Your task to perform on an android device: Show me the alarms in the clock app Image 0: 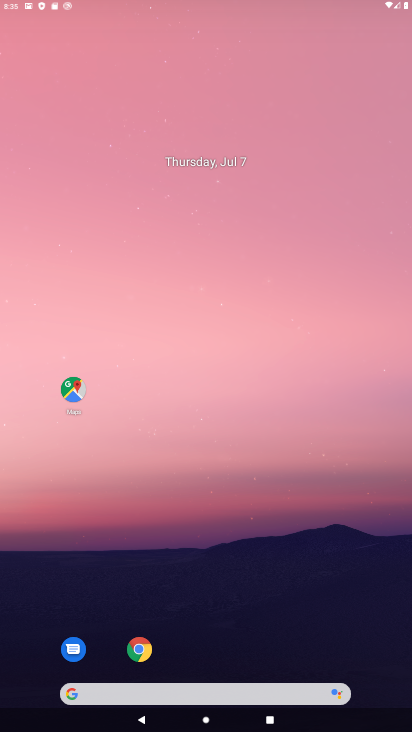
Step 0: drag from (195, 647) to (276, 110)
Your task to perform on an android device: Show me the alarms in the clock app Image 1: 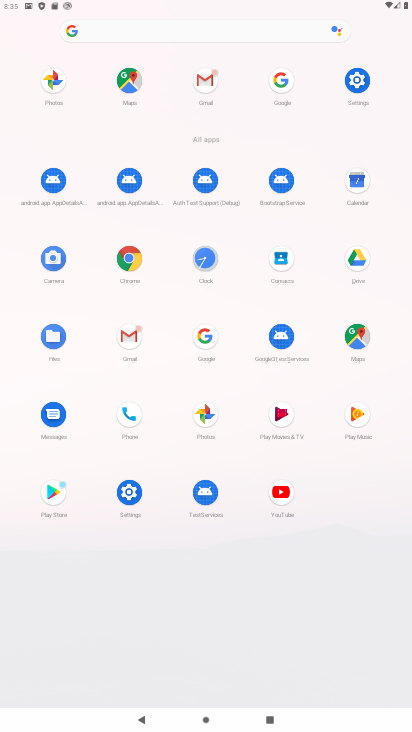
Step 1: click (226, 242)
Your task to perform on an android device: Show me the alarms in the clock app Image 2: 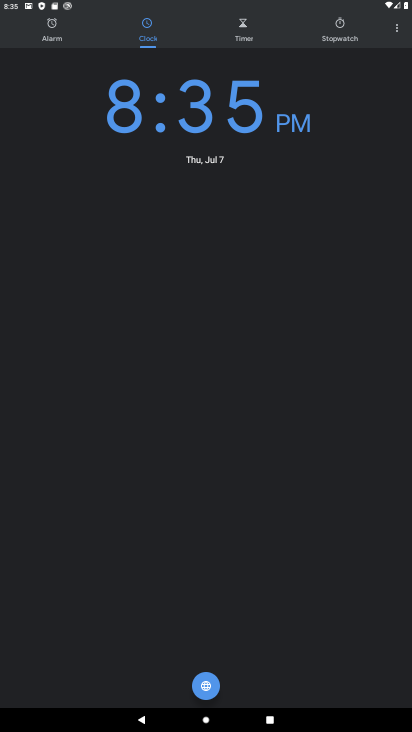
Step 2: click (54, 16)
Your task to perform on an android device: Show me the alarms in the clock app Image 3: 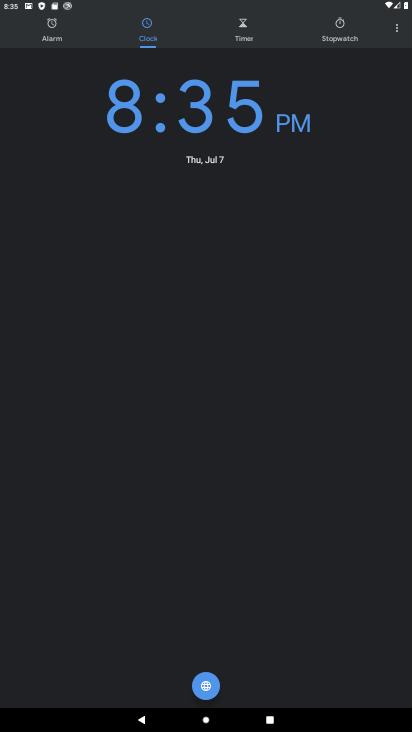
Step 3: click (64, 28)
Your task to perform on an android device: Show me the alarms in the clock app Image 4: 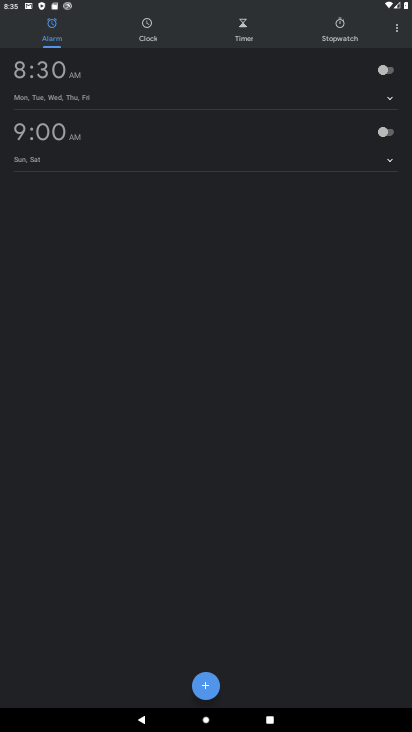
Step 4: task complete